Your task to perform on an android device: check data usage Image 0: 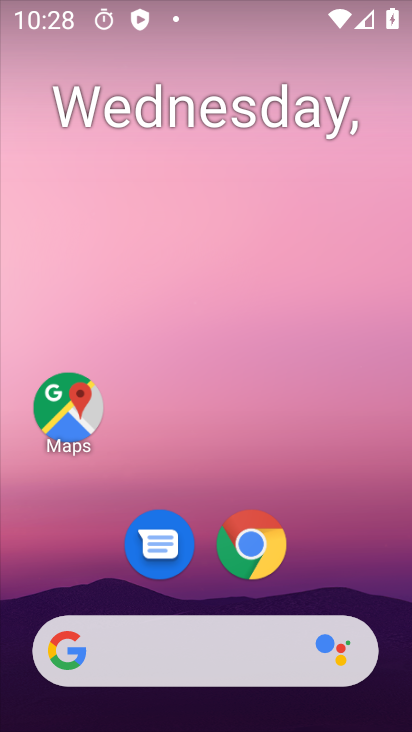
Step 0: press home button
Your task to perform on an android device: check data usage Image 1: 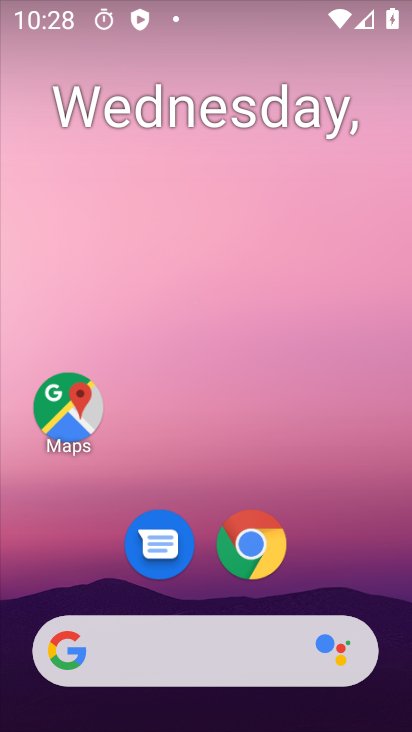
Step 1: drag from (280, 669) to (273, 11)
Your task to perform on an android device: check data usage Image 2: 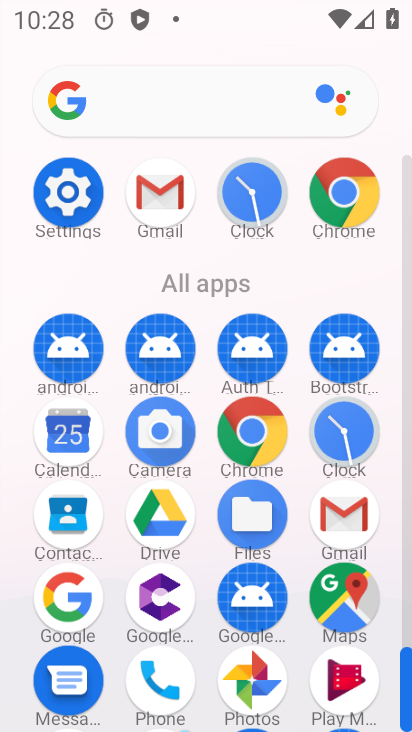
Step 2: click (50, 189)
Your task to perform on an android device: check data usage Image 3: 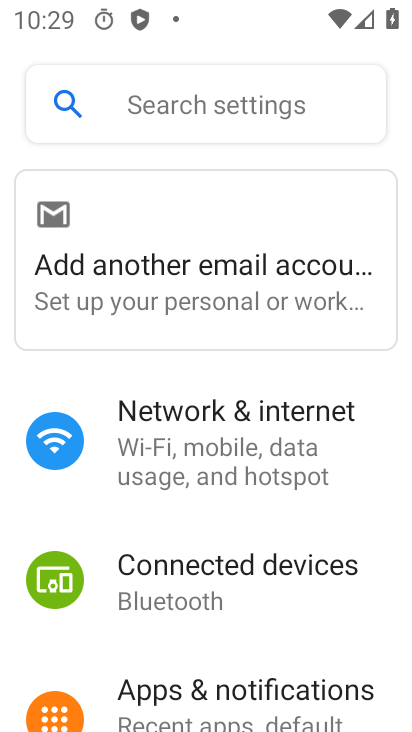
Step 3: click (159, 124)
Your task to perform on an android device: check data usage Image 4: 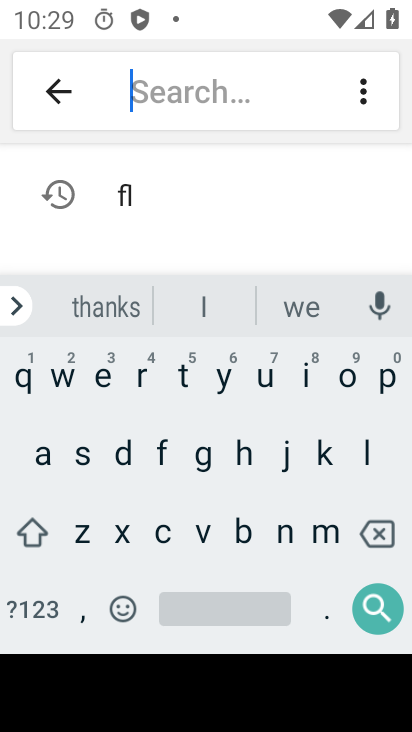
Step 4: click (120, 458)
Your task to perform on an android device: check data usage Image 5: 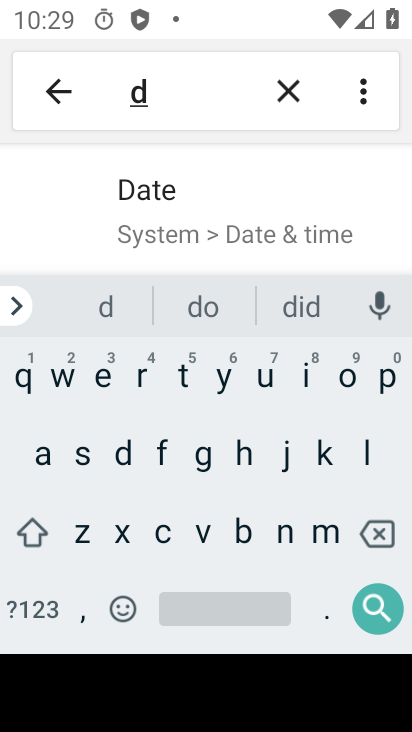
Step 5: click (46, 445)
Your task to perform on an android device: check data usage Image 6: 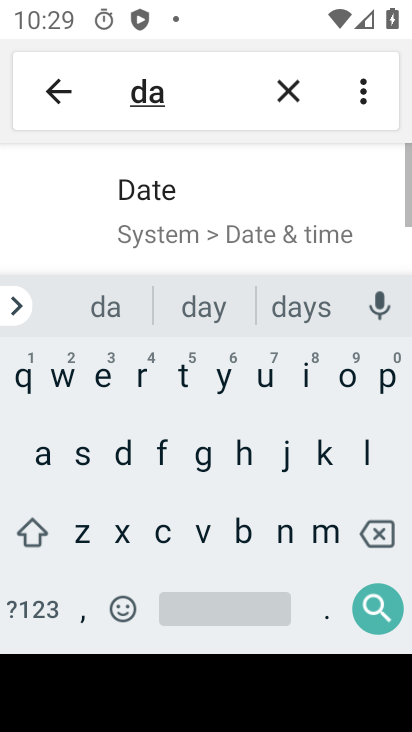
Step 6: click (177, 378)
Your task to perform on an android device: check data usage Image 7: 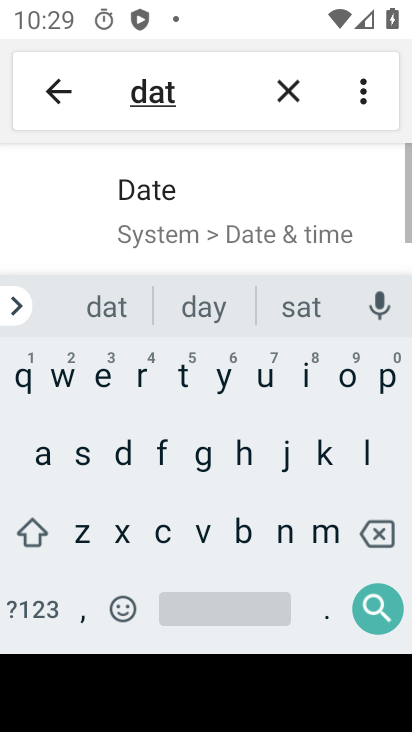
Step 7: click (31, 454)
Your task to perform on an android device: check data usage Image 8: 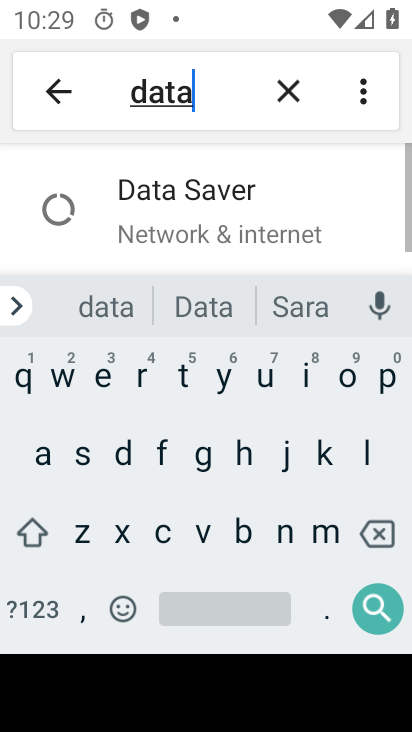
Step 8: click (228, 616)
Your task to perform on an android device: check data usage Image 9: 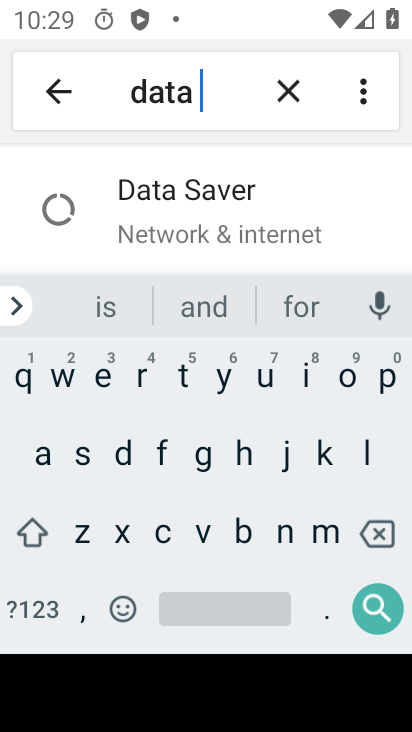
Step 9: click (262, 381)
Your task to perform on an android device: check data usage Image 10: 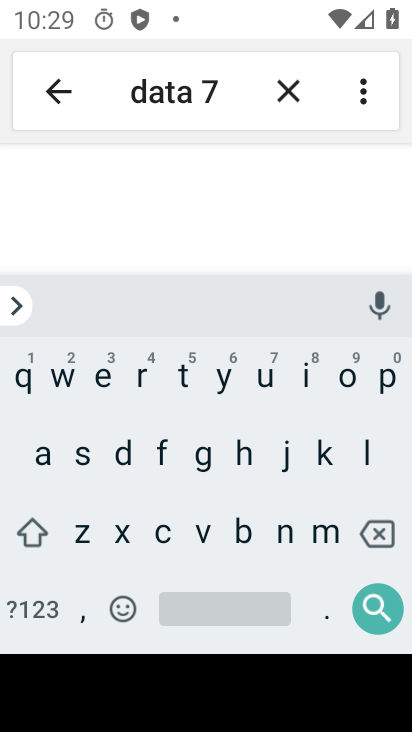
Step 10: click (377, 535)
Your task to perform on an android device: check data usage Image 11: 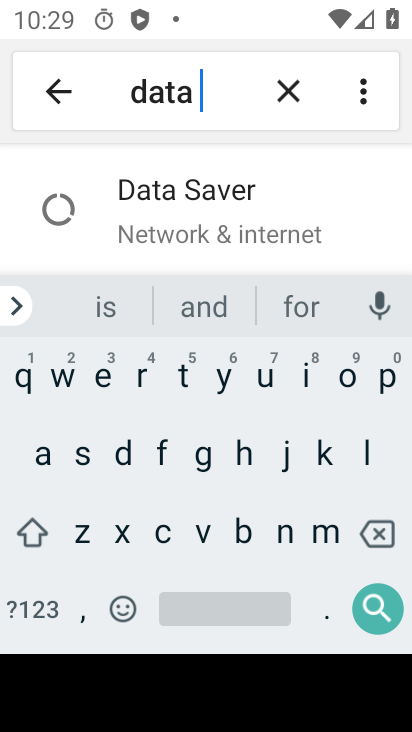
Step 11: click (259, 374)
Your task to perform on an android device: check data usage Image 12: 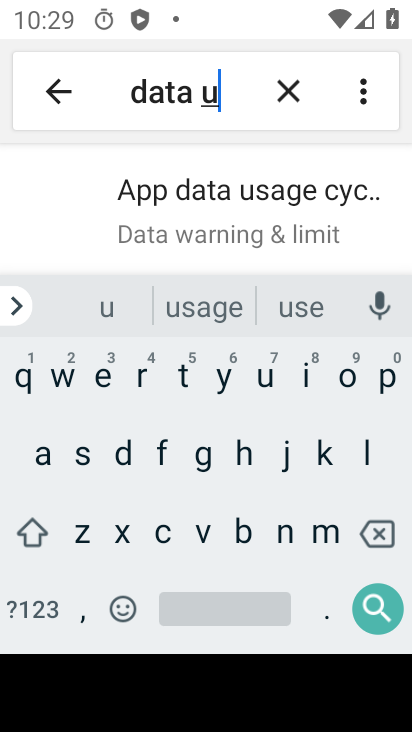
Step 12: drag from (206, 221) to (219, 160)
Your task to perform on an android device: check data usage Image 13: 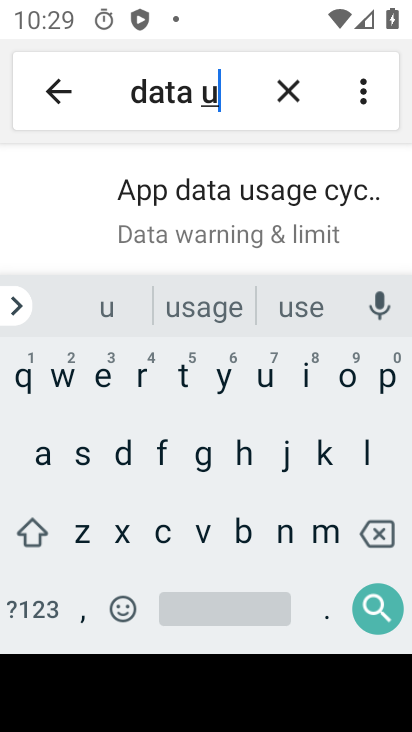
Step 13: press back button
Your task to perform on an android device: check data usage Image 14: 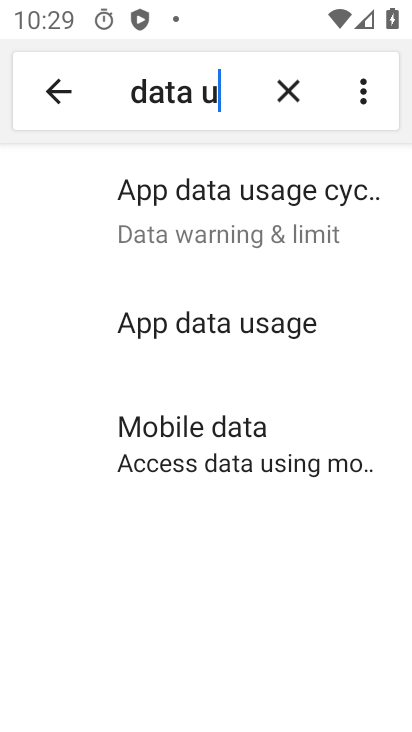
Step 14: click (211, 335)
Your task to perform on an android device: check data usage Image 15: 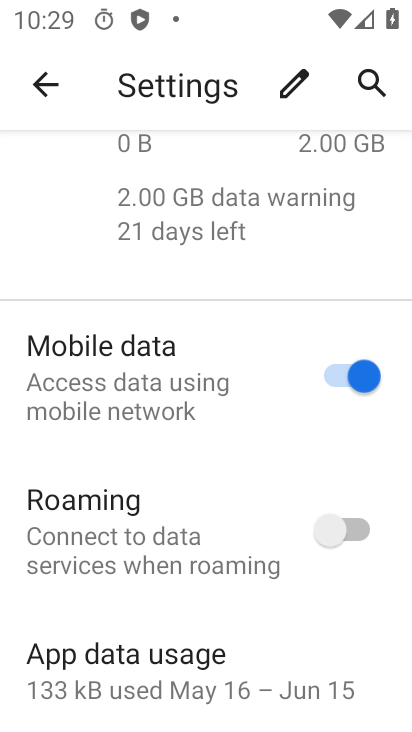
Step 15: click (188, 663)
Your task to perform on an android device: check data usage Image 16: 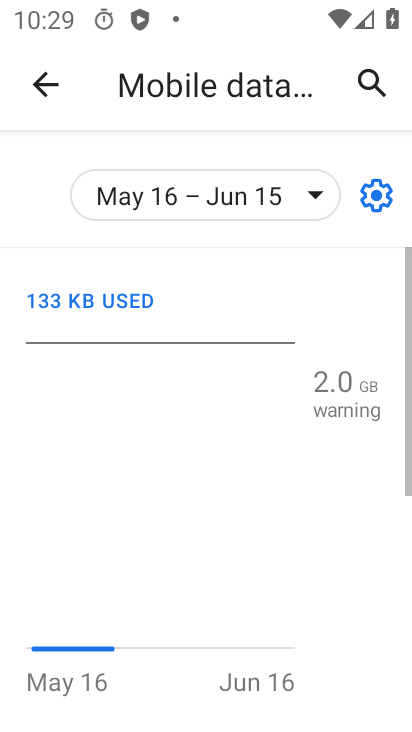
Step 16: task complete